Your task to perform on an android device: Open calendar and show me the third week of next month Image 0: 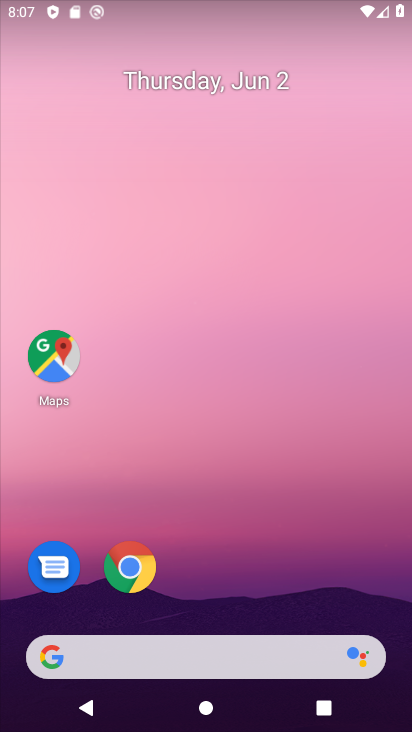
Step 0: press home button
Your task to perform on an android device: Open calendar and show me the third week of next month Image 1: 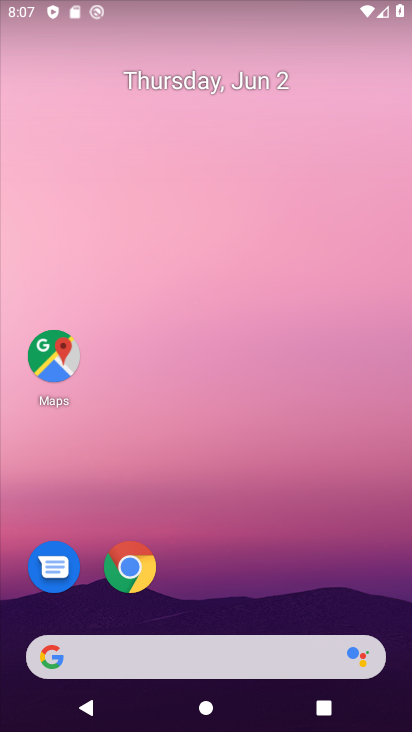
Step 1: drag from (265, 683) to (198, 215)
Your task to perform on an android device: Open calendar and show me the third week of next month Image 2: 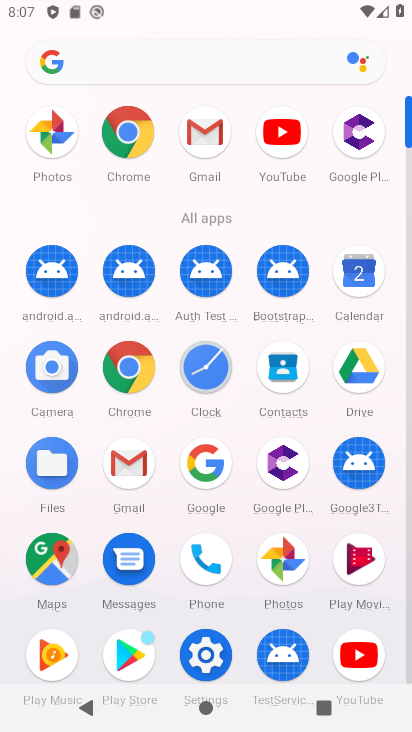
Step 2: drag from (365, 278) to (324, 308)
Your task to perform on an android device: Open calendar and show me the third week of next month Image 3: 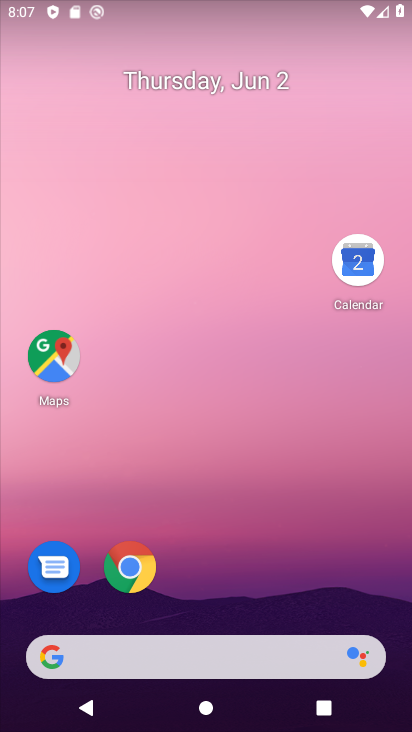
Step 3: drag from (351, 287) to (244, 384)
Your task to perform on an android device: Open calendar and show me the third week of next month Image 4: 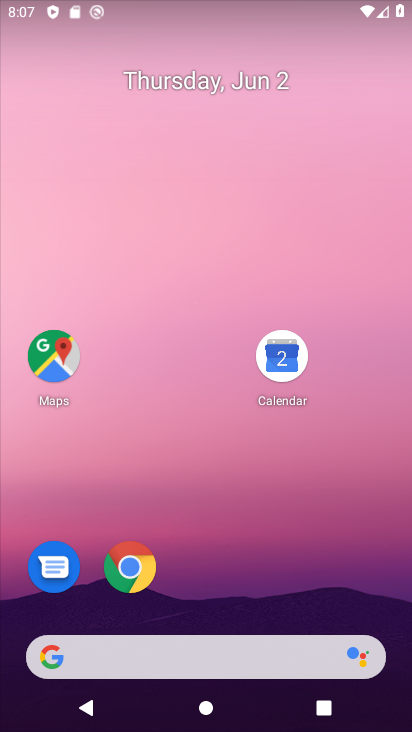
Step 4: click (274, 369)
Your task to perform on an android device: Open calendar and show me the third week of next month Image 5: 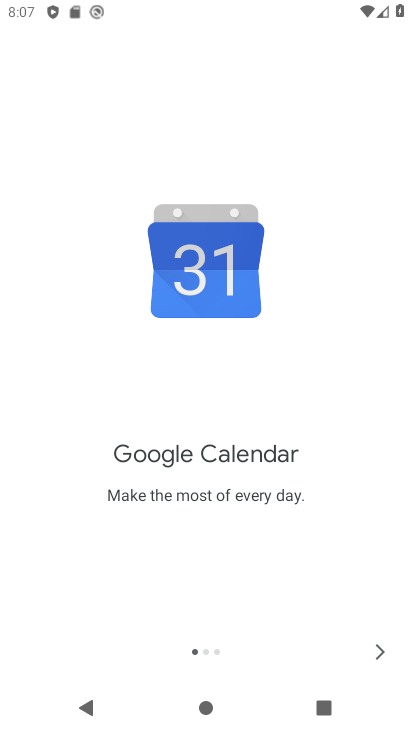
Step 5: click (377, 650)
Your task to perform on an android device: Open calendar and show me the third week of next month Image 6: 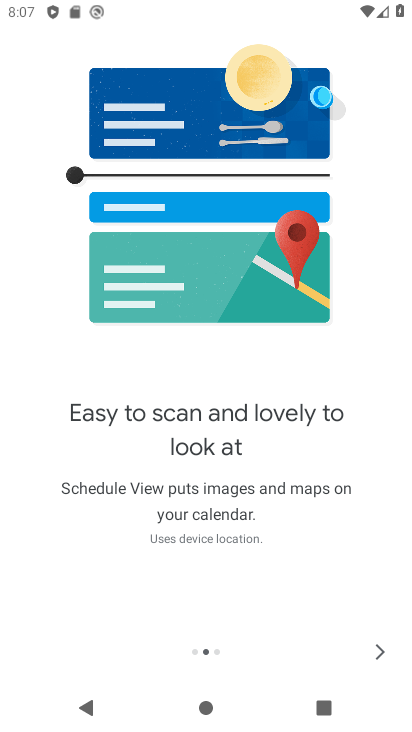
Step 6: click (378, 655)
Your task to perform on an android device: Open calendar and show me the third week of next month Image 7: 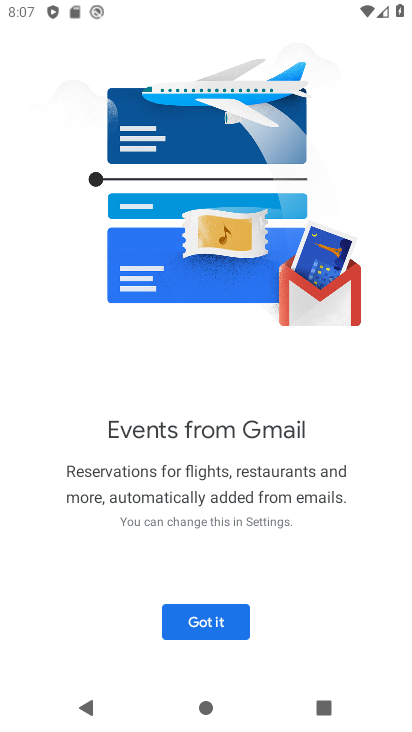
Step 7: click (223, 616)
Your task to perform on an android device: Open calendar and show me the third week of next month Image 8: 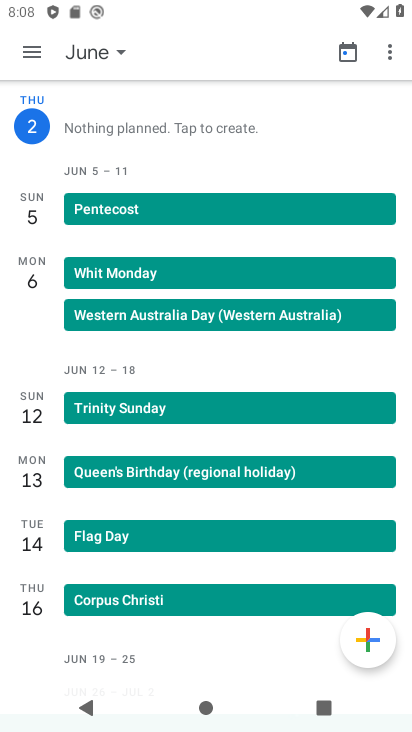
Step 8: click (38, 51)
Your task to perform on an android device: Open calendar and show me the third week of next month Image 9: 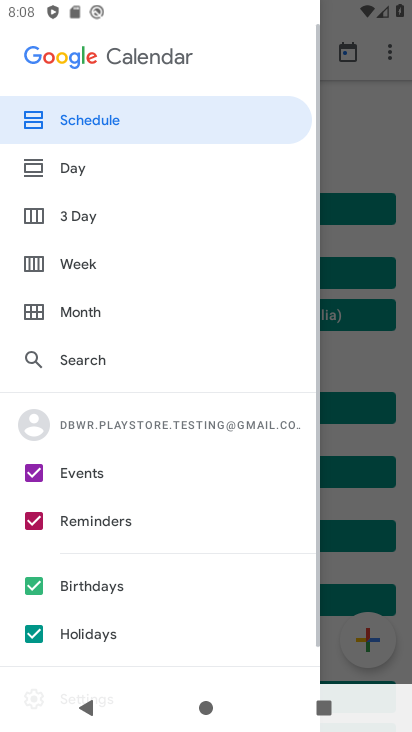
Step 9: click (114, 317)
Your task to perform on an android device: Open calendar and show me the third week of next month Image 10: 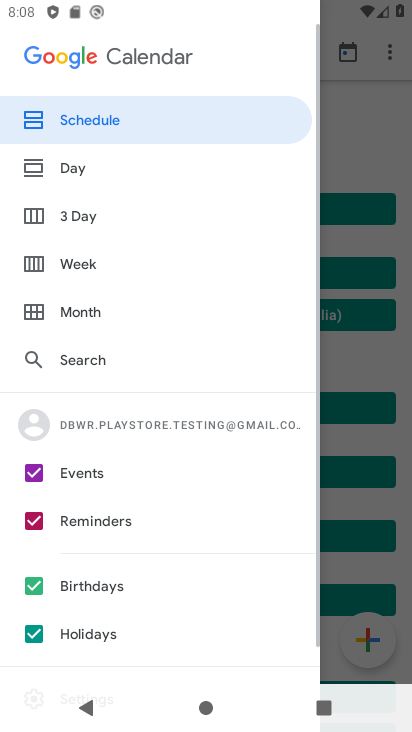
Step 10: click (115, 316)
Your task to perform on an android device: Open calendar and show me the third week of next month Image 11: 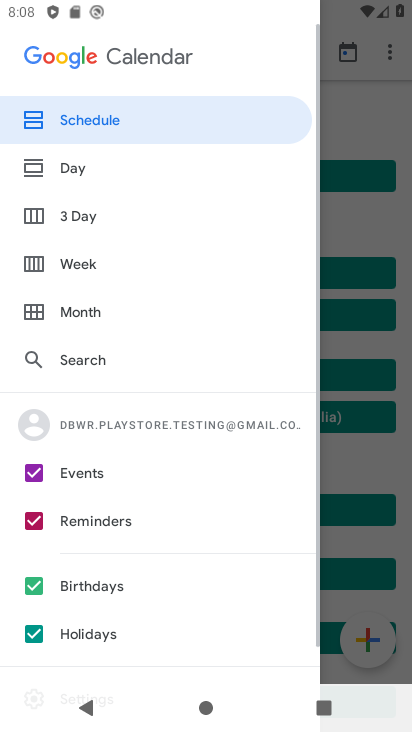
Step 11: click (89, 313)
Your task to perform on an android device: Open calendar and show me the third week of next month Image 12: 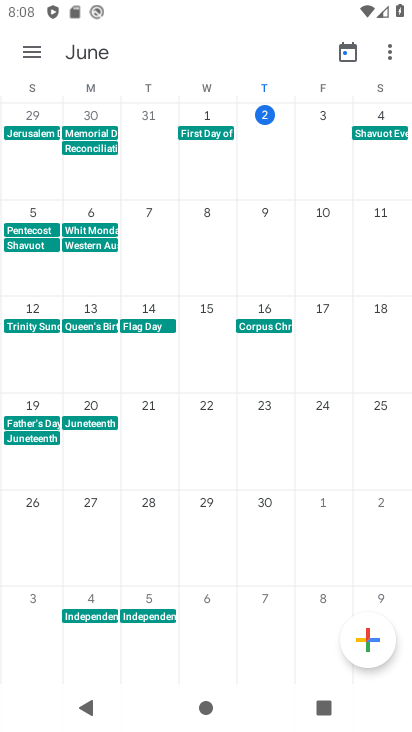
Step 12: drag from (372, 357) to (10, 379)
Your task to perform on an android device: Open calendar and show me the third week of next month Image 13: 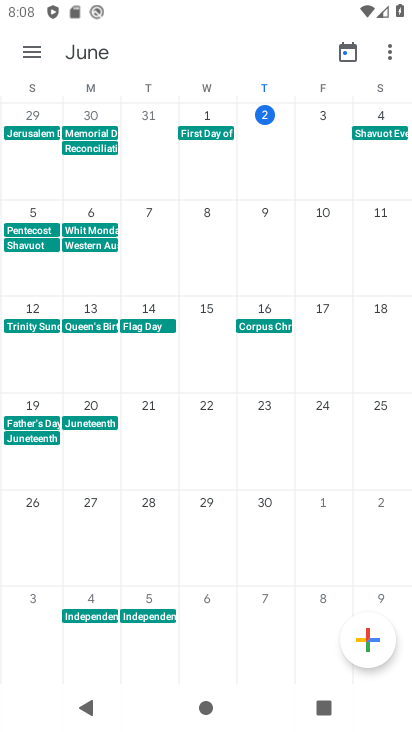
Step 13: drag from (388, 388) to (65, 474)
Your task to perform on an android device: Open calendar and show me the third week of next month Image 14: 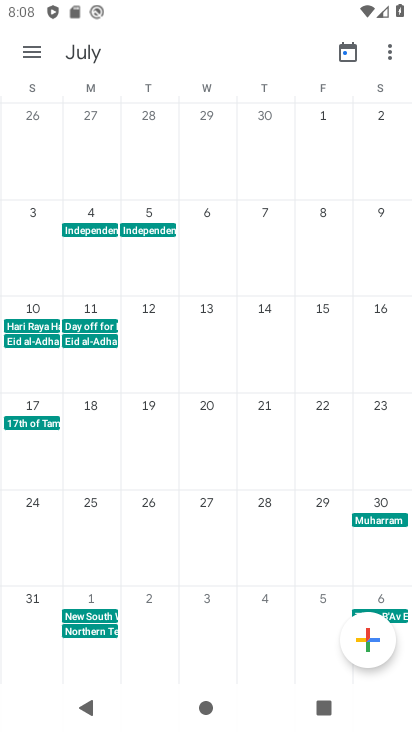
Step 14: click (79, 433)
Your task to perform on an android device: Open calendar and show me the third week of next month Image 15: 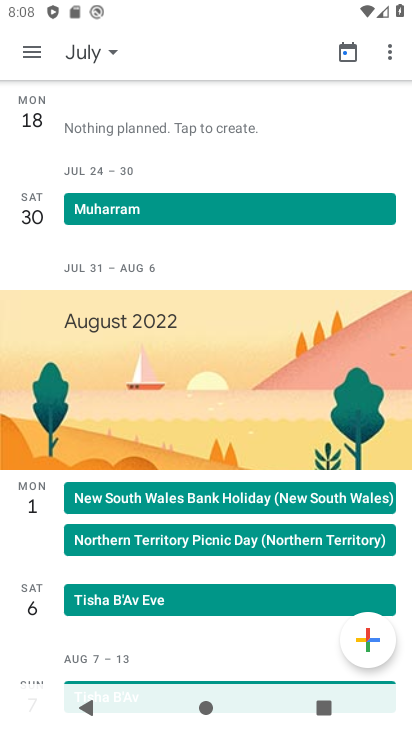
Step 15: task complete